Your task to perform on an android device: Open settings on Google Maps Image 0: 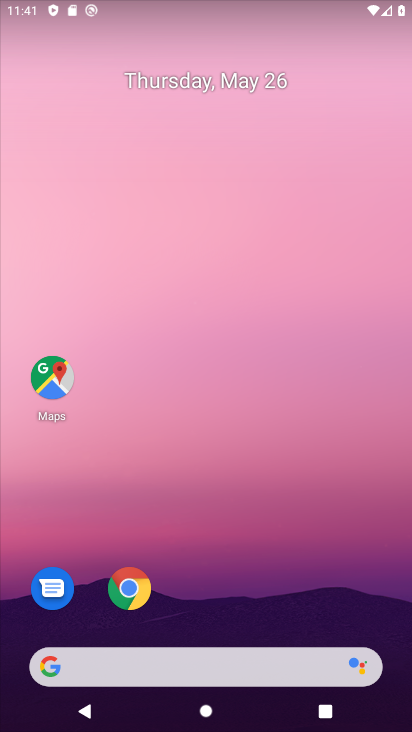
Step 0: click (54, 391)
Your task to perform on an android device: Open settings on Google Maps Image 1: 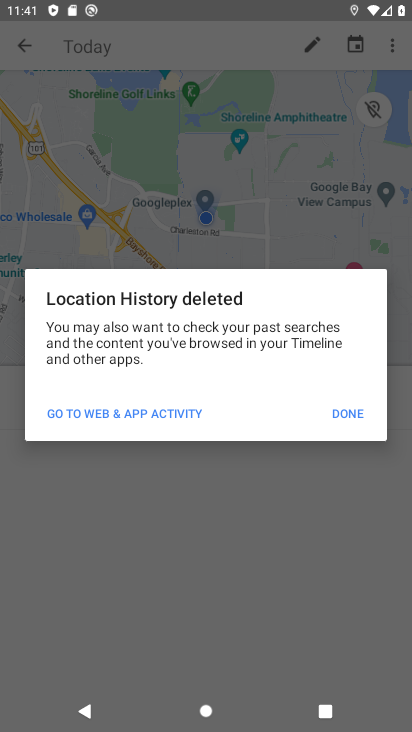
Step 1: click (338, 413)
Your task to perform on an android device: Open settings on Google Maps Image 2: 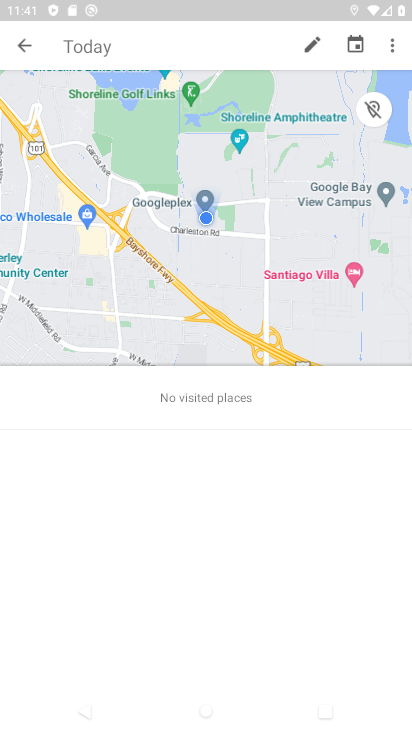
Step 2: click (25, 41)
Your task to perform on an android device: Open settings on Google Maps Image 3: 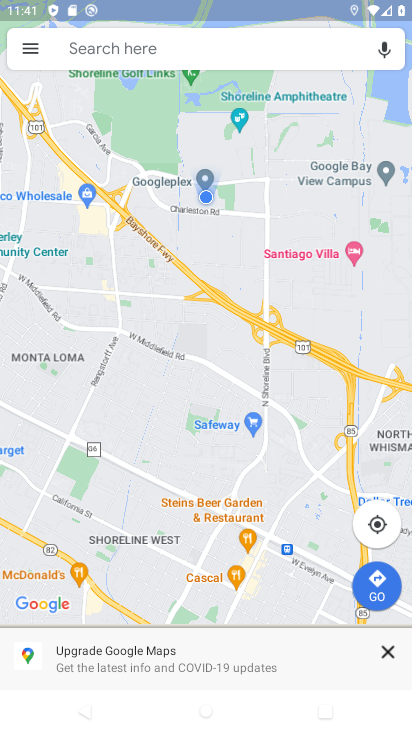
Step 3: click (25, 41)
Your task to perform on an android device: Open settings on Google Maps Image 4: 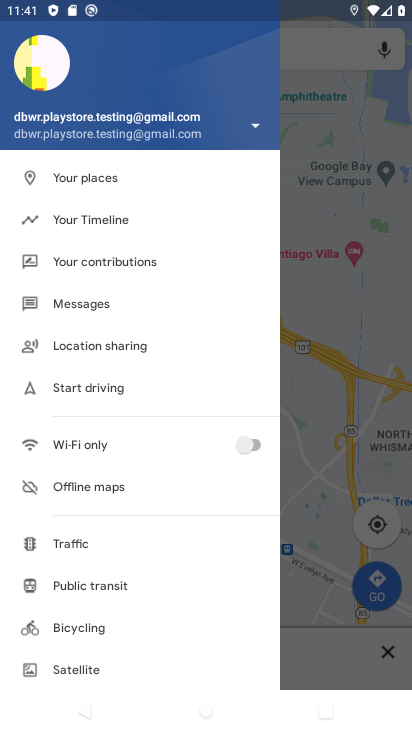
Step 4: drag from (179, 544) to (188, 327)
Your task to perform on an android device: Open settings on Google Maps Image 5: 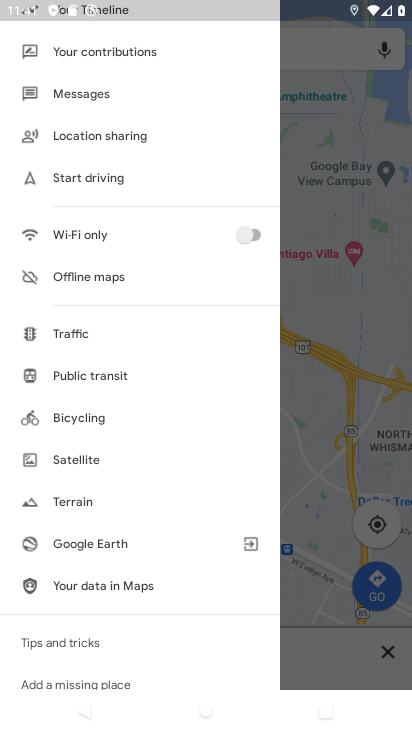
Step 5: click (163, 609)
Your task to perform on an android device: Open settings on Google Maps Image 6: 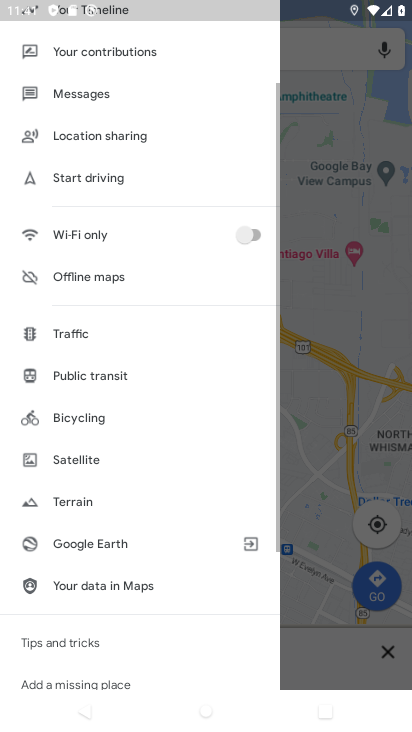
Step 6: drag from (163, 609) to (171, 348)
Your task to perform on an android device: Open settings on Google Maps Image 7: 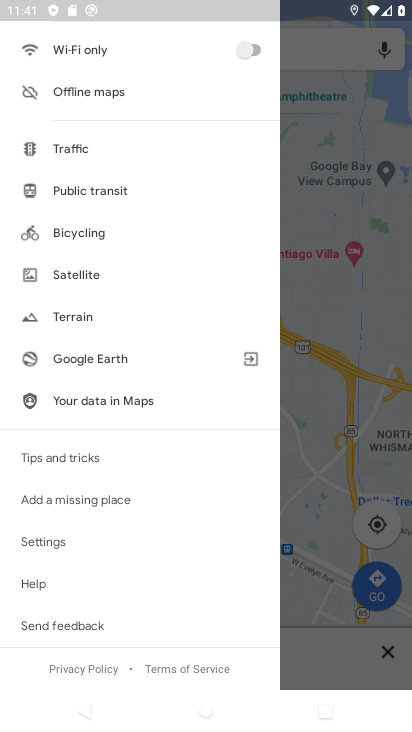
Step 7: click (61, 541)
Your task to perform on an android device: Open settings on Google Maps Image 8: 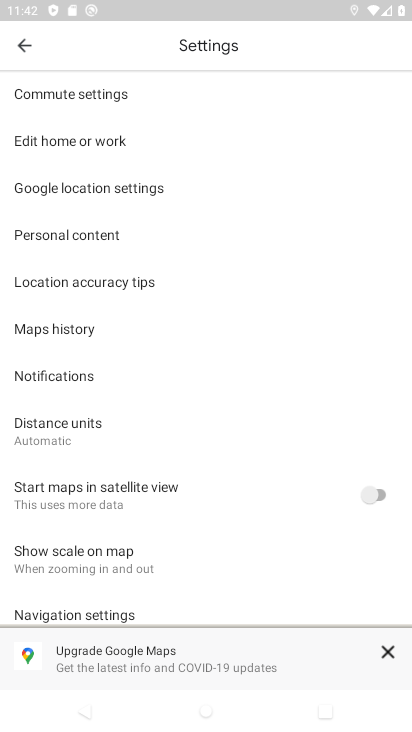
Step 8: task complete